Your task to perform on an android device: turn on showing notifications on the lock screen Image 0: 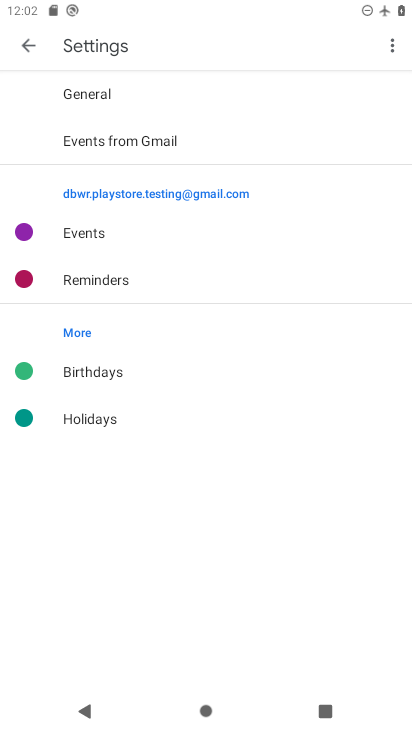
Step 0: press home button
Your task to perform on an android device: turn on showing notifications on the lock screen Image 1: 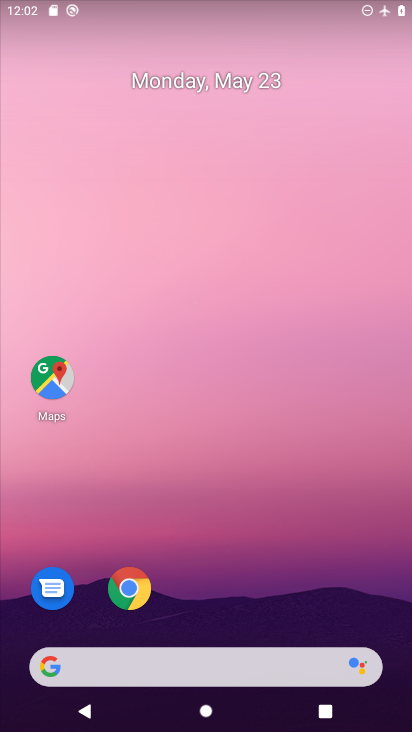
Step 1: drag from (249, 646) to (216, 385)
Your task to perform on an android device: turn on showing notifications on the lock screen Image 2: 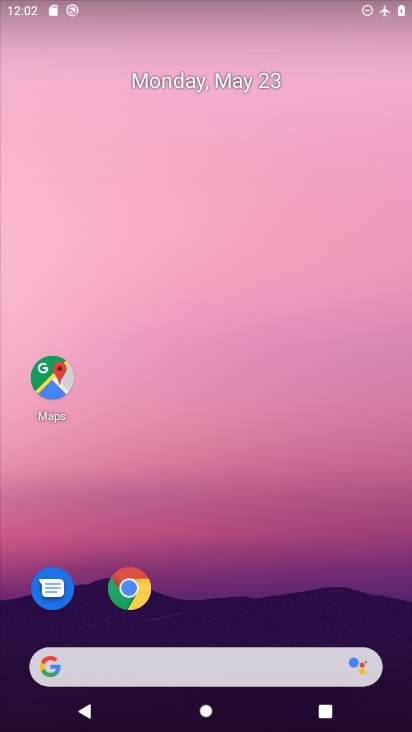
Step 2: drag from (183, 635) to (112, 34)
Your task to perform on an android device: turn on showing notifications on the lock screen Image 3: 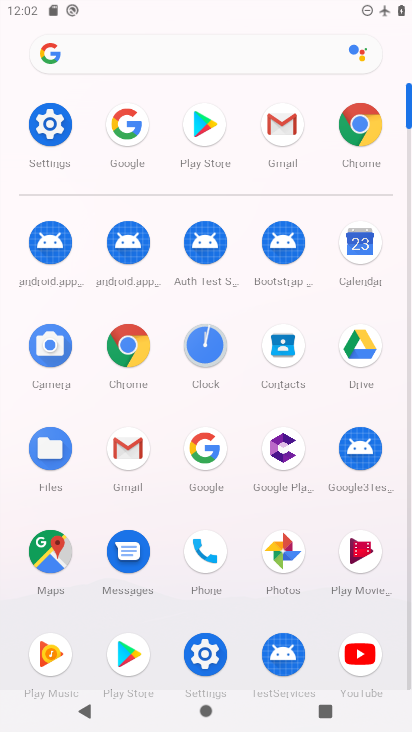
Step 3: click (49, 145)
Your task to perform on an android device: turn on showing notifications on the lock screen Image 4: 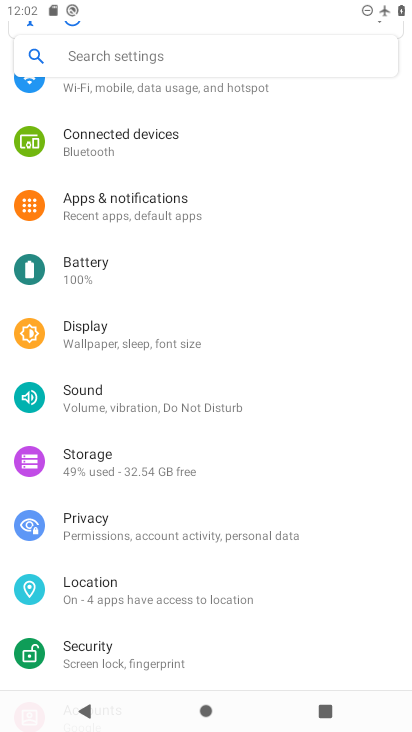
Step 4: click (107, 601)
Your task to perform on an android device: turn on showing notifications on the lock screen Image 5: 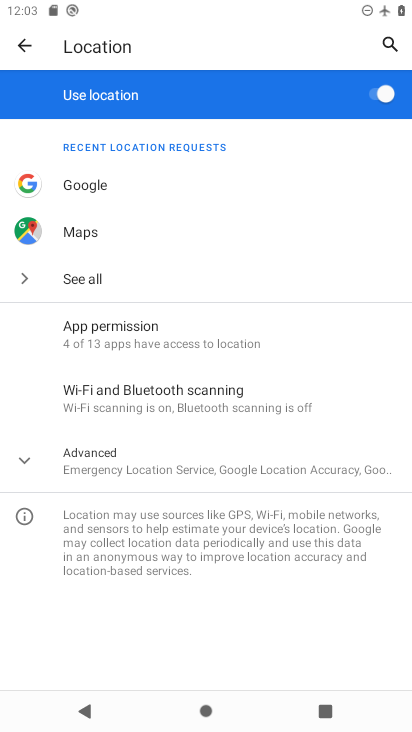
Step 5: click (123, 491)
Your task to perform on an android device: turn on showing notifications on the lock screen Image 6: 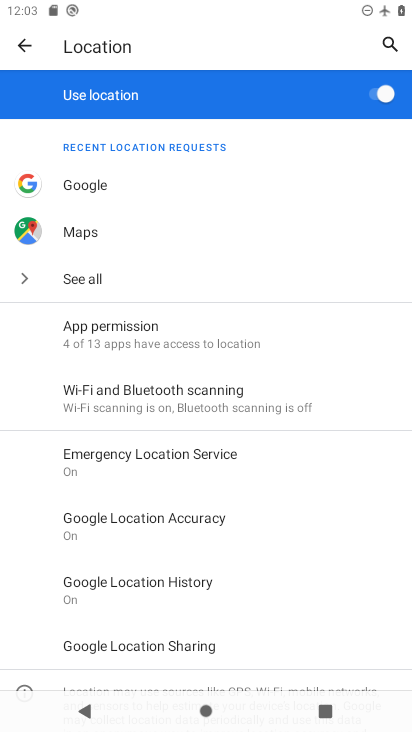
Step 6: click (27, 42)
Your task to perform on an android device: turn on showing notifications on the lock screen Image 7: 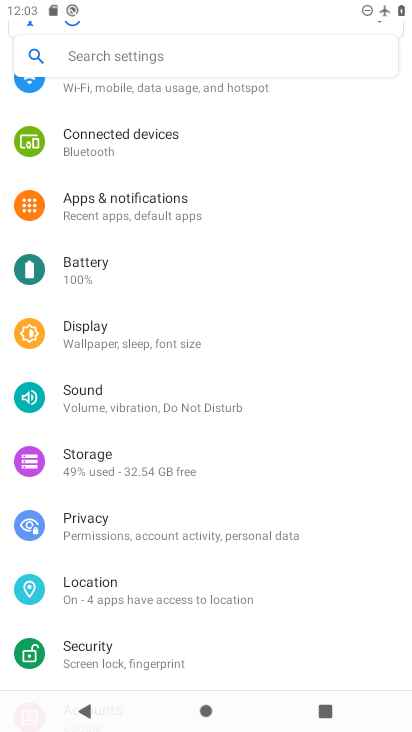
Step 7: click (112, 524)
Your task to perform on an android device: turn on showing notifications on the lock screen Image 8: 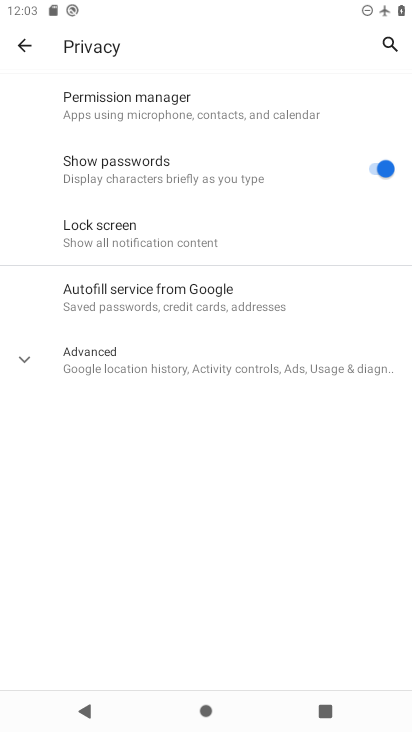
Step 8: click (111, 247)
Your task to perform on an android device: turn on showing notifications on the lock screen Image 9: 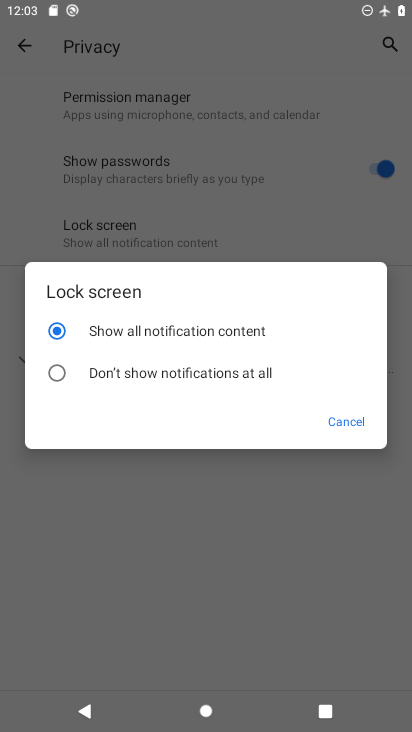
Step 9: task complete